Your task to perform on an android device: Open Google Chrome and click the shortcut for Amazon.com Image 0: 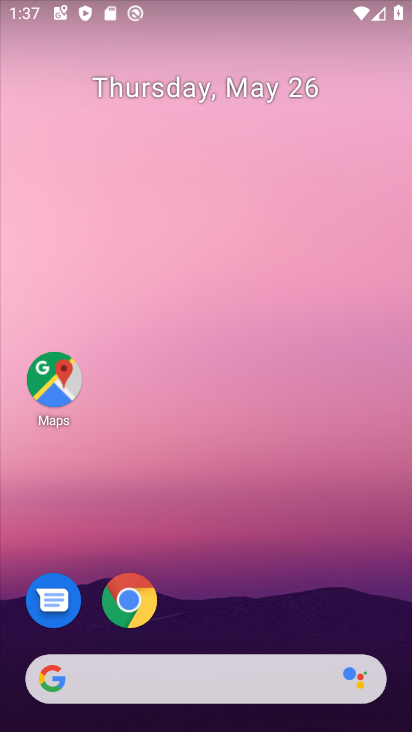
Step 0: click (124, 590)
Your task to perform on an android device: Open Google Chrome and click the shortcut for Amazon.com Image 1: 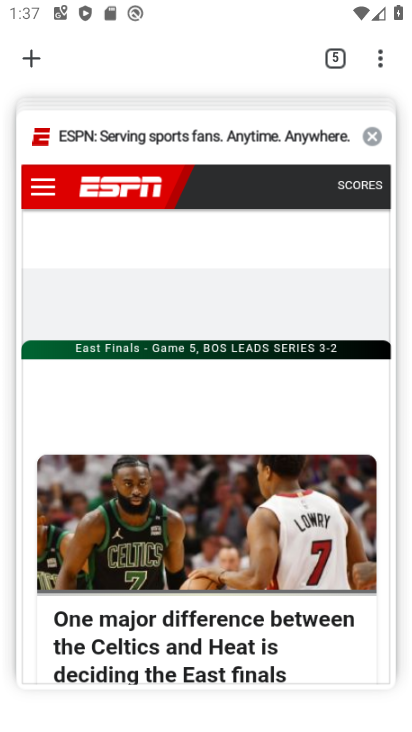
Step 1: click (338, 53)
Your task to perform on an android device: Open Google Chrome and click the shortcut for Amazon.com Image 2: 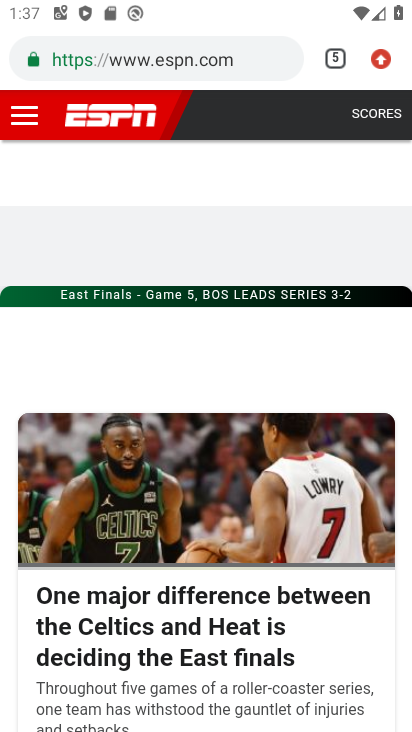
Step 2: click (338, 55)
Your task to perform on an android device: Open Google Chrome and click the shortcut for Amazon.com Image 3: 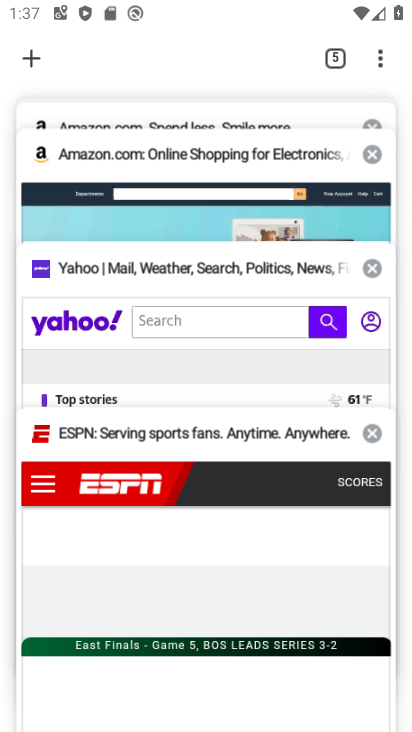
Step 3: click (153, 194)
Your task to perform on an android device: Open Google Chrome and click the shortcut for Amazon.com Image 4: 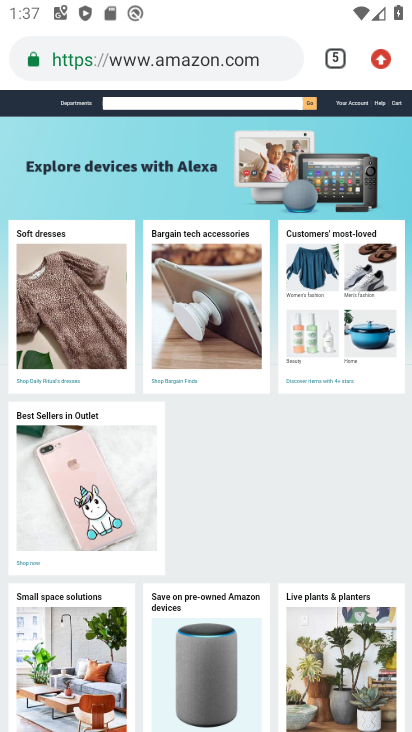
Step 4: task complete